Your task to perform on an android device: Open sound settings Image 0: 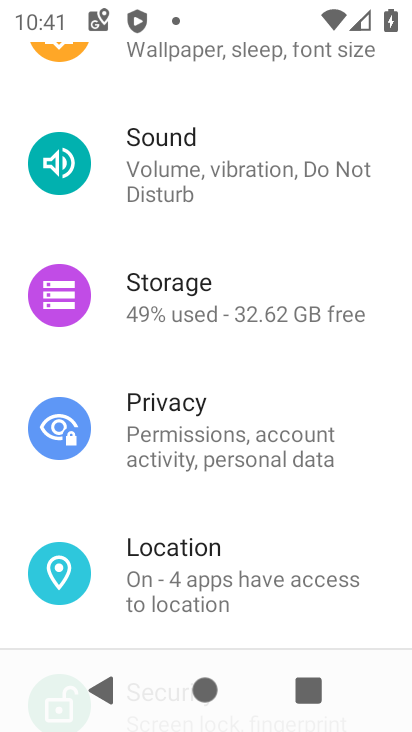
Step 0: click (250, 159)
Your task to perform on an android device: Open sound settings Image 1: 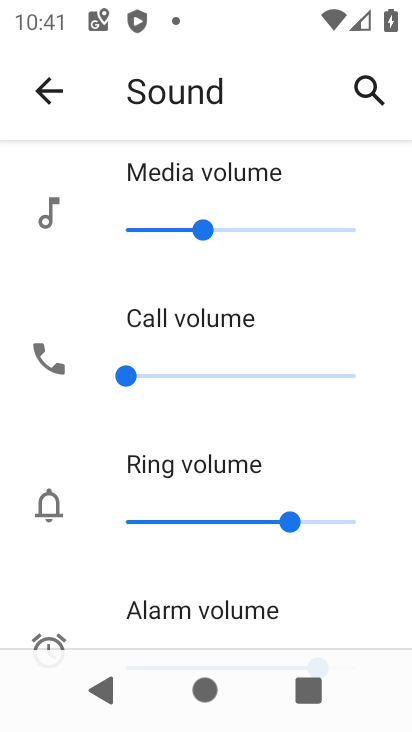
Step 1: task complete